Your task to perform on an android device: Search for pizza restaurants on Maps Image 0: 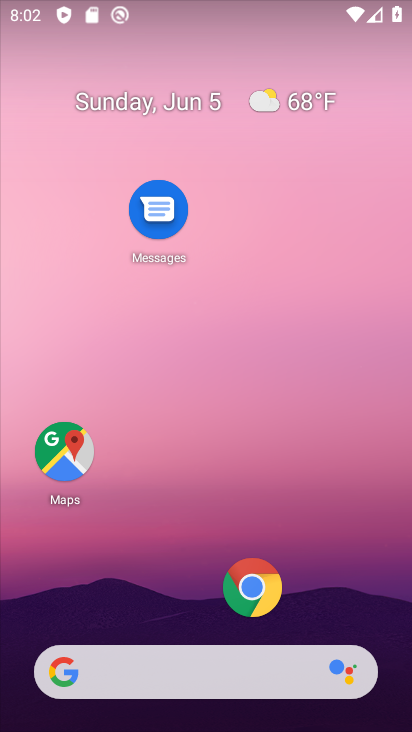
Step 0: press home button
Your task to perform on an android device: Search for pizza restaurants on Maps Image 1: 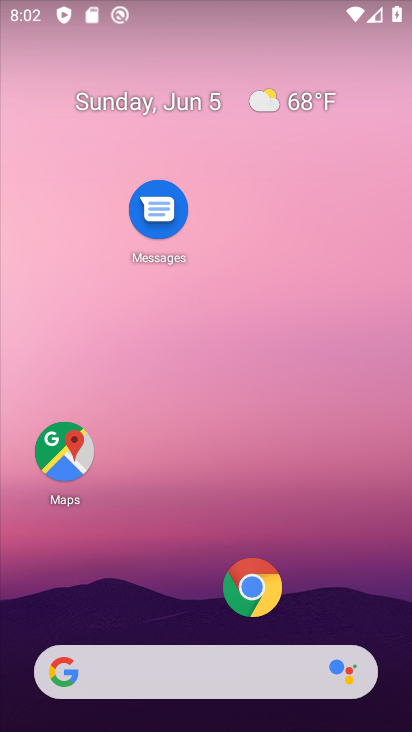
Step 1: click (64, 449)
Your task to perform on an android device: Search for pizza restaurants on Maps Image 2: 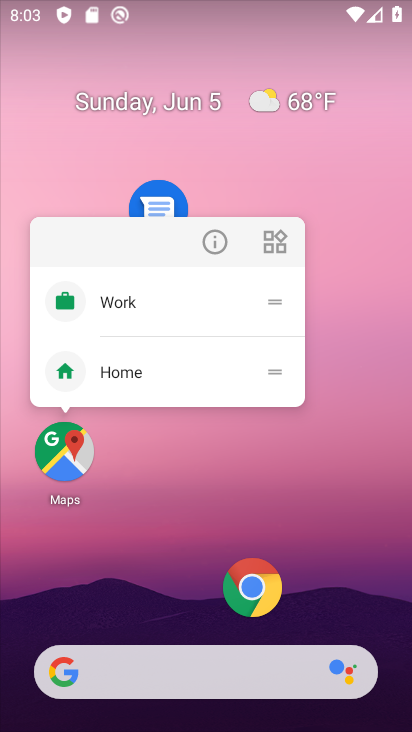
Step 2: click (61, 443)
Your task to perform on an android device: Search for pizza restaurants on Maps Image 3: 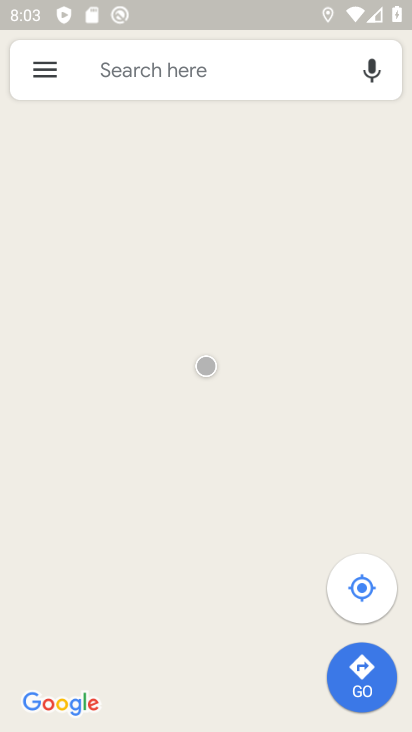
Step 3: click (183, 59)
Your task to perform on an android device: Search for pizza restaurants on Maps Image 4: 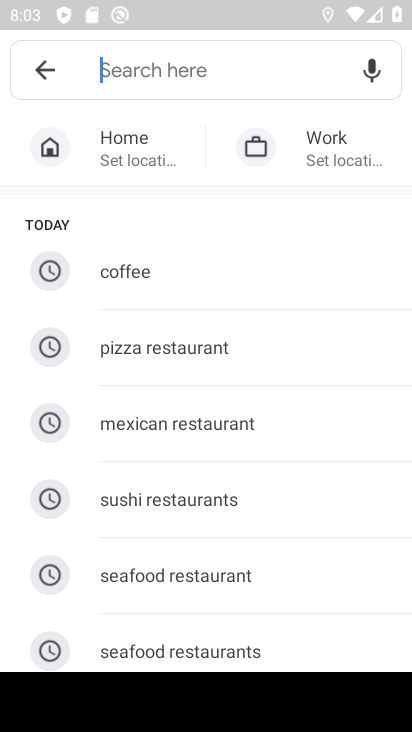
Step 4: click (163, 338)
Your task to perform on an android device: Search for pizza restaurants on Maps Image 5: 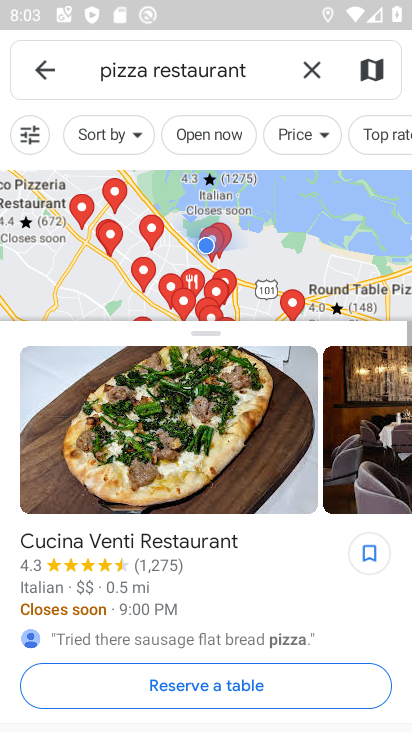
Step 5: task complete